Your task to perform on an android device: find photos in the google photos app Image 0: 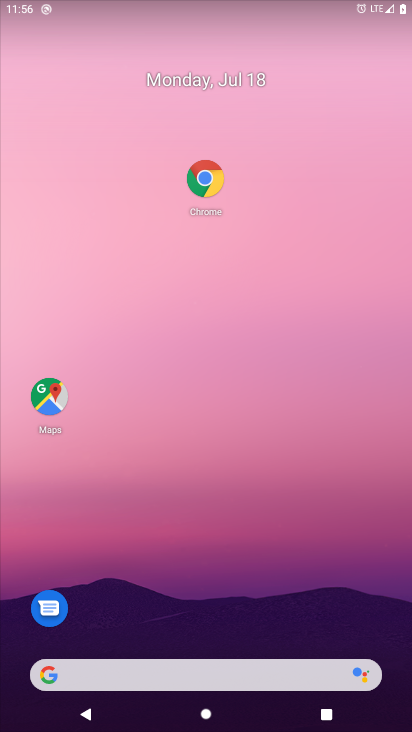
Step 0: drag from (22, 703) to (207, 263)
Your task to perform on an android device: find photos in the google photos app Image 1: 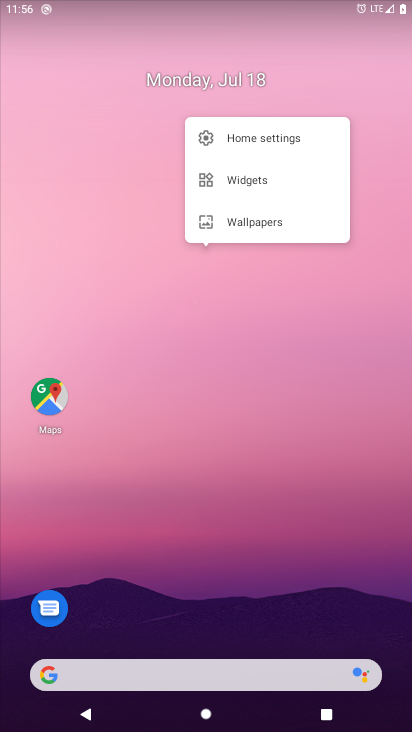
Step 1: drag from (28, 702) to (221, 1)
Your task to perform on an android device: find photos in the google photos app Image 2: 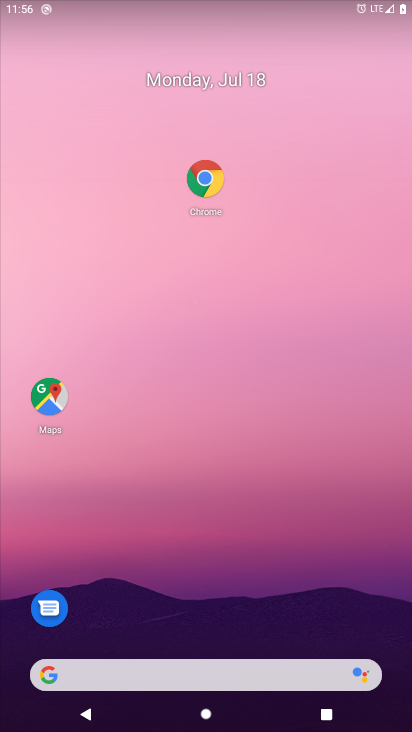
Step 2: drag from (74, 496) to (222, 43)
Your task to perform on an android device: find photos in the google photos app Image 3: 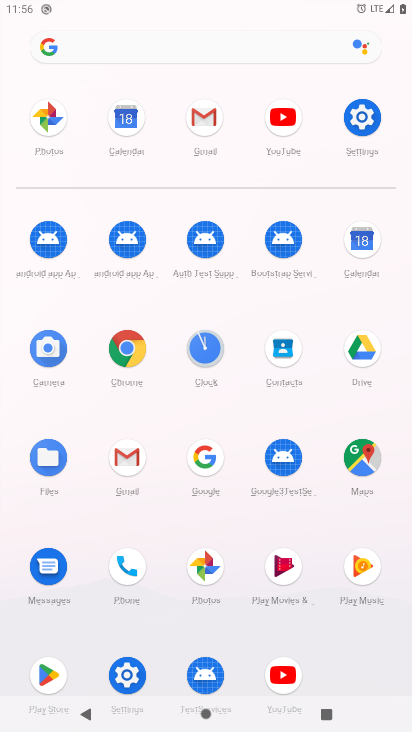
Step 3: click (188, 568)
Your task to perform on an android device: find photos in the google photos app Image 4: 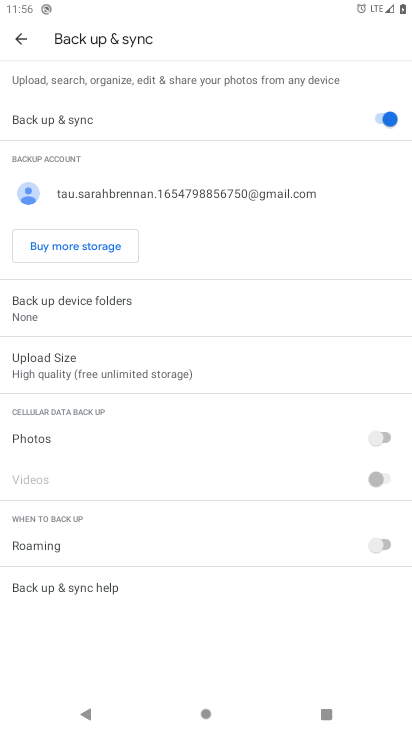
Step 4: click (15, 46)
Your task to perform on an android device: find photos in the google photos app Image 5: 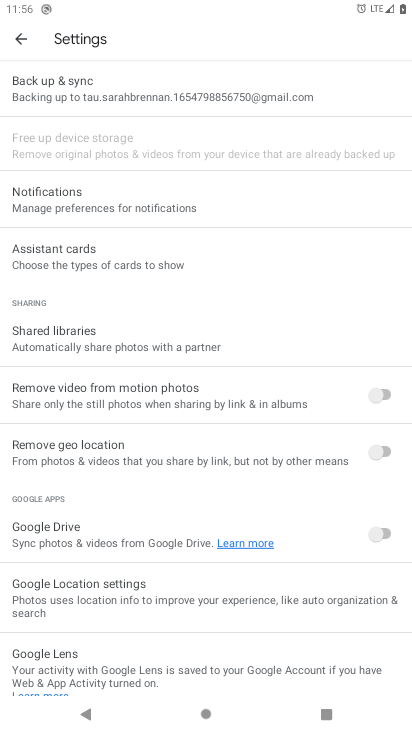
Step 5: click (14, 35)
Your task to perform on an android device: find photos in the google photos app Image 6: 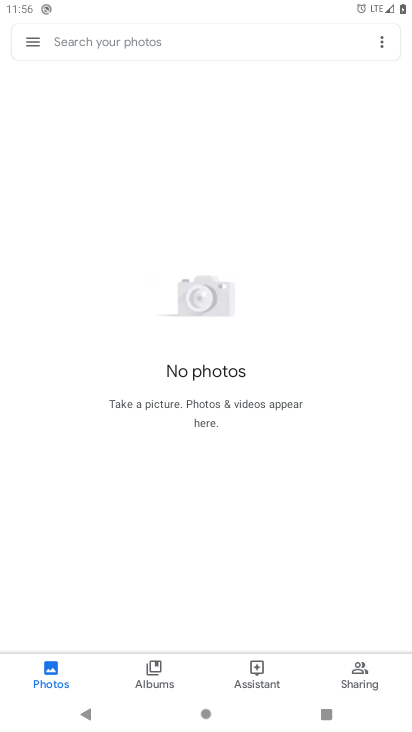
Step 6: task complete